Your task to perform on an android device: Open Yahoo.com Image 0: 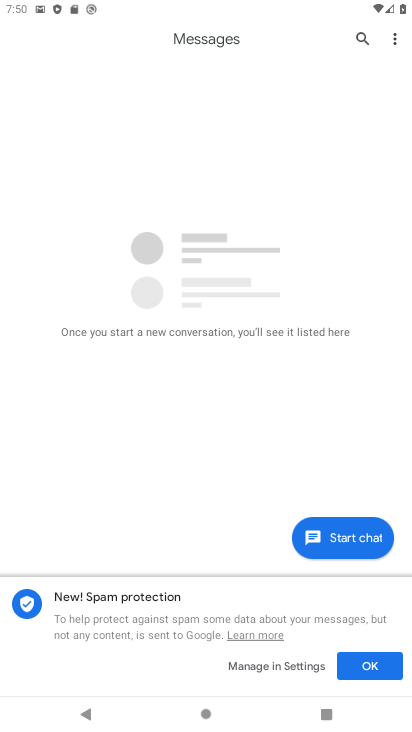
Step 0: press back button
Your task to perform on an android device: Open Yahoo.com Image 1: 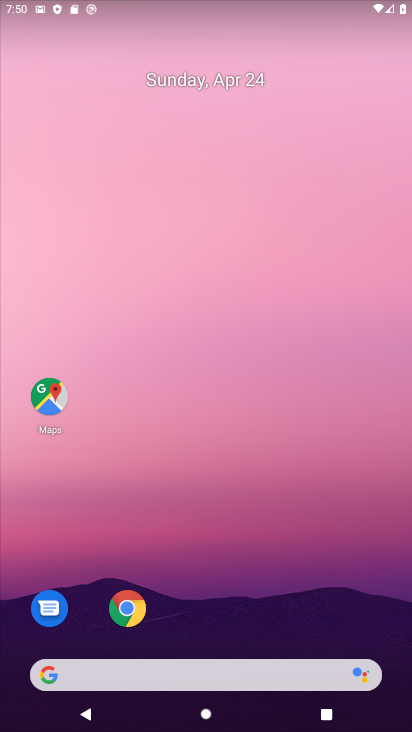
Step 1: click (127, 607)
Your task to perform on an android device: Open Yahoo.com Image 2: 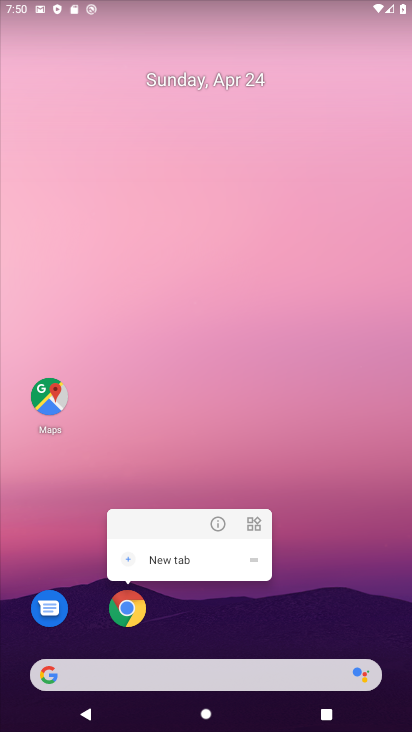
Step 2: click (128, 614)
Your task to perform on an android device: Open Yahoo.com Image 3: 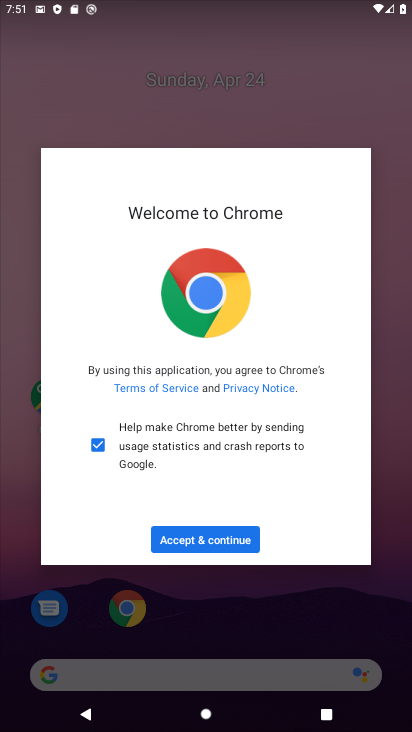
Step 3: click (228, 534)
Your task to perform on an android device: Open Yahoo.com Image 4: 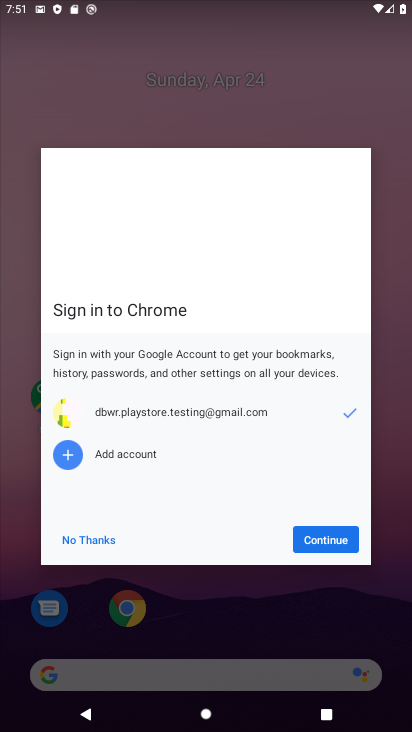
Step 4: click (324, 545)
Your task to perform on an android device: Open Yahoo.com Image 5: 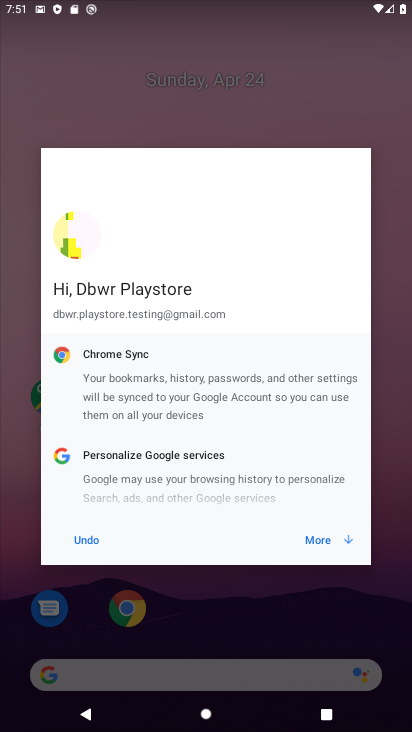
Step 5: click (314, 541)
Your task to perform on an android device: Open Yahoo.com Image 6: 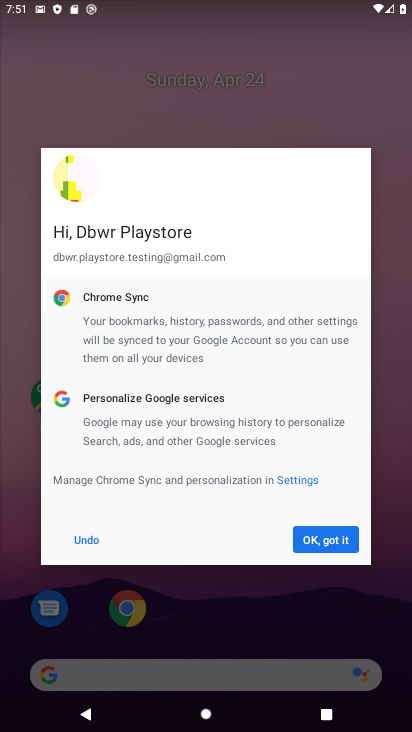
Step 6: click (314, 541)
Your task to perform on an android device: Open Yahoo.com Image 7: 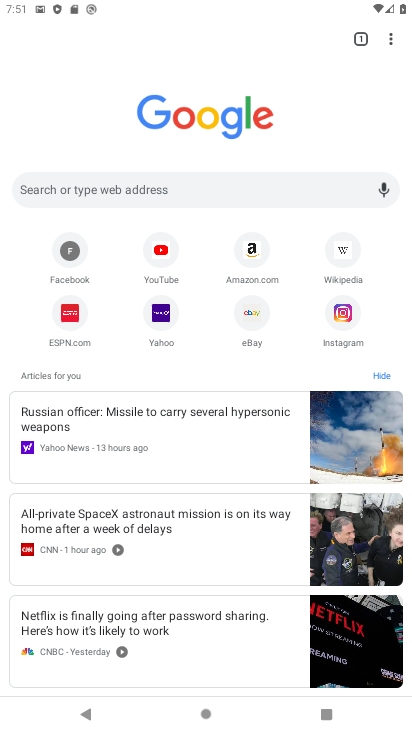
Step 7: click (163, 322)
Your task to perform on an android device: Open Yahoo.com Image 8: 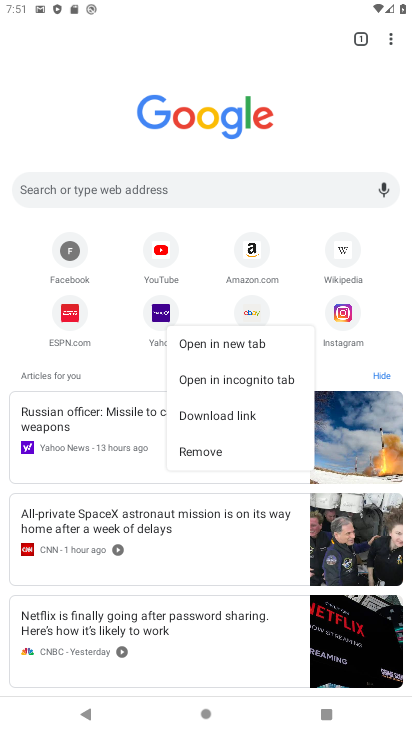
Step 8: click (158, 318)
Your task to perform on an android device: Open Yahoo.com Image 9: 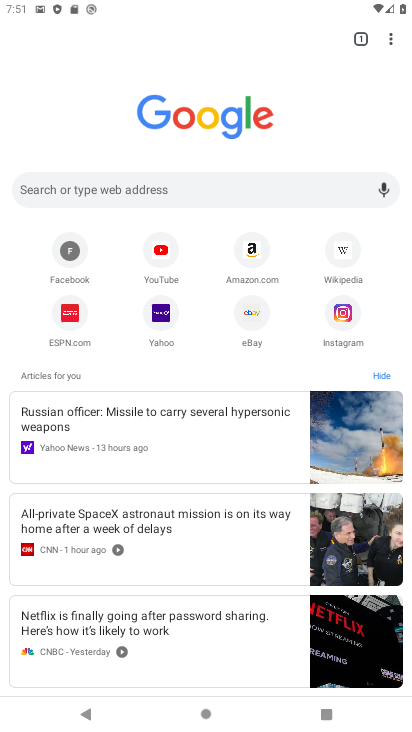
Step 9: click (159, 311)
Your task to perform on an android device: Open Yahoo.com Image 10: 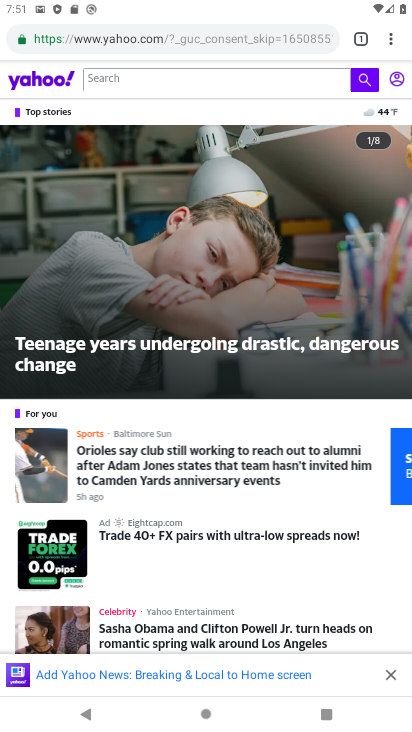
Step 10: task complete